Your task to perform on an android device: Open Google Chrome and click the shortcut for Amazon.com Image 0: 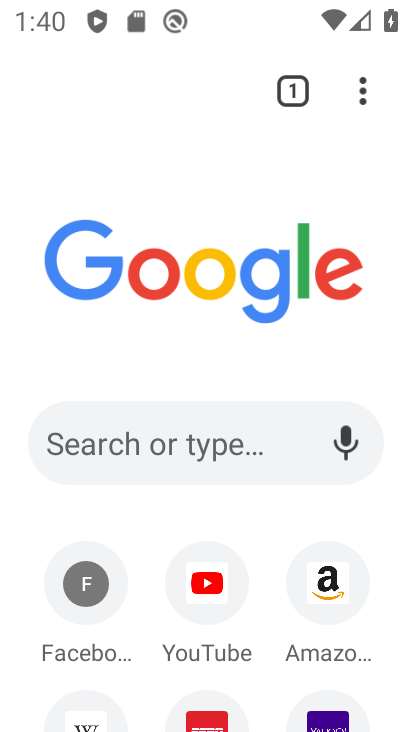
Step 0: click (327, 569)
Your task to perform on an android device: Open Google Chrome and click the shortcut for Amazon.com Image 1: 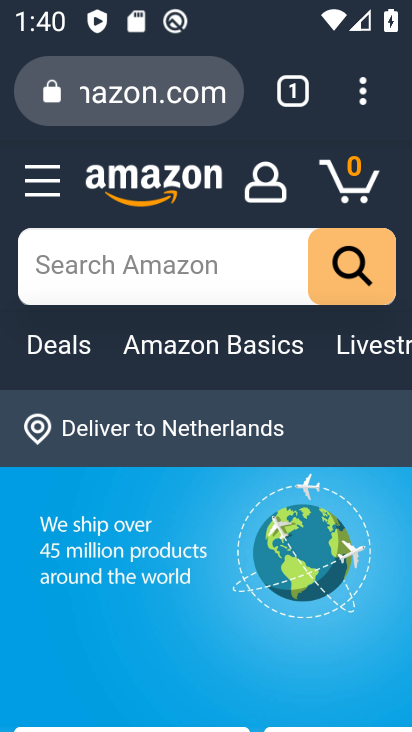
Step 1: task complete